Your task to perform on an android device: set an alarm Image 0: 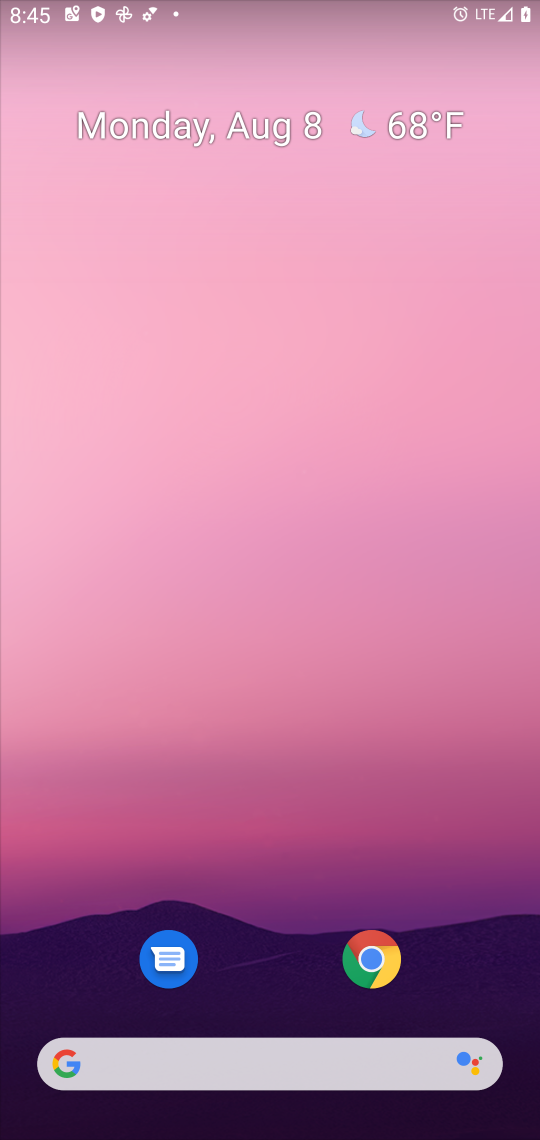
Step 0: drag from (474, 985) to (153, 12)
Your task to perform on an android device: set an alarm Image 1: 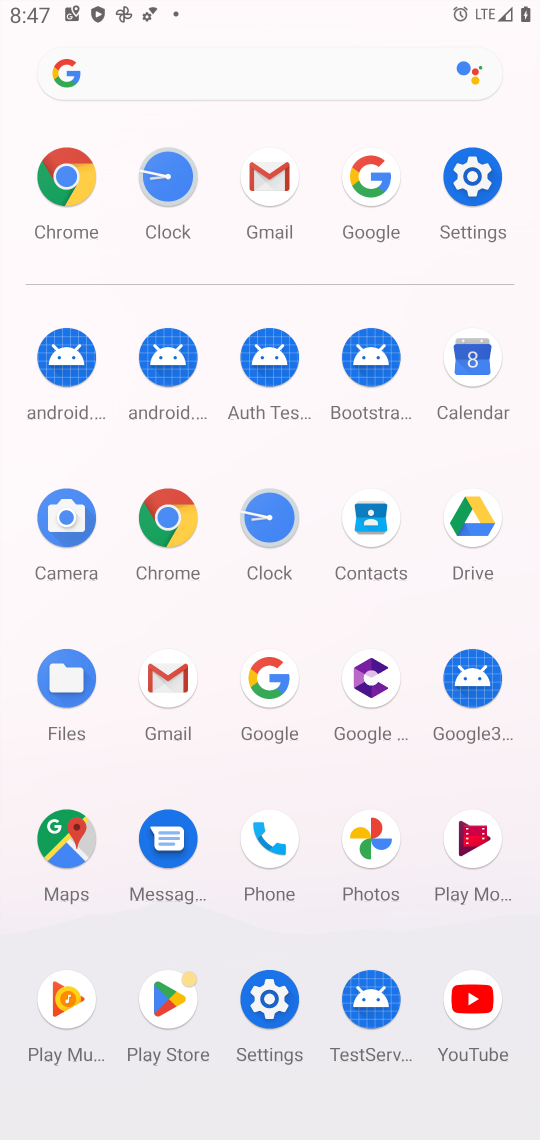
Step 1: click (298, 527)
Your task to perform on an android device: set an alarm Image 2: 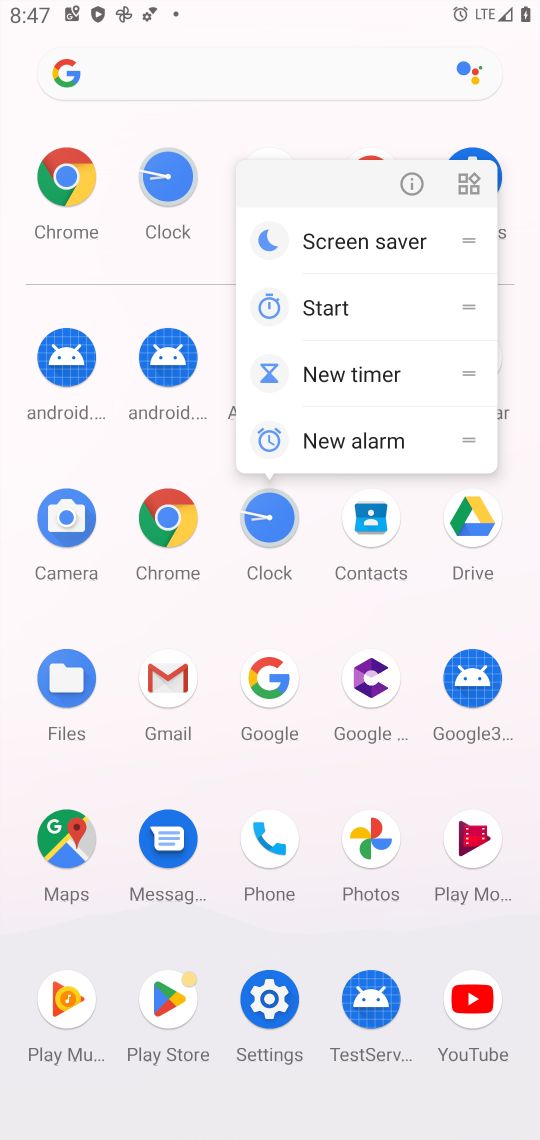
Step 2: click (279, 517)
Your task to perform on an android device: set an alarm Image 3: 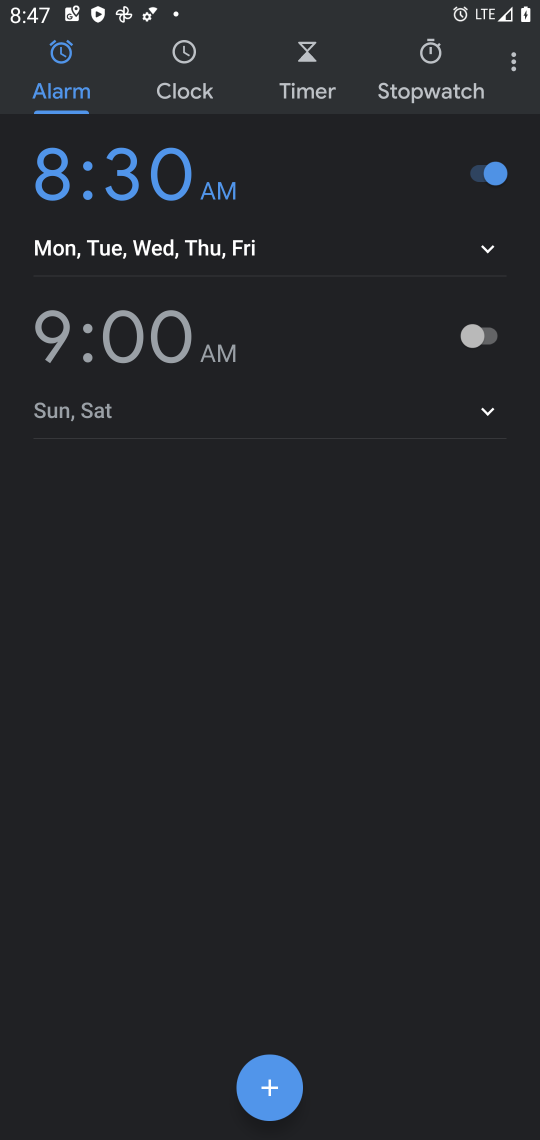
Step 3: click (495, 336)
Your task to perform on an android device: set an alarm Image 4: 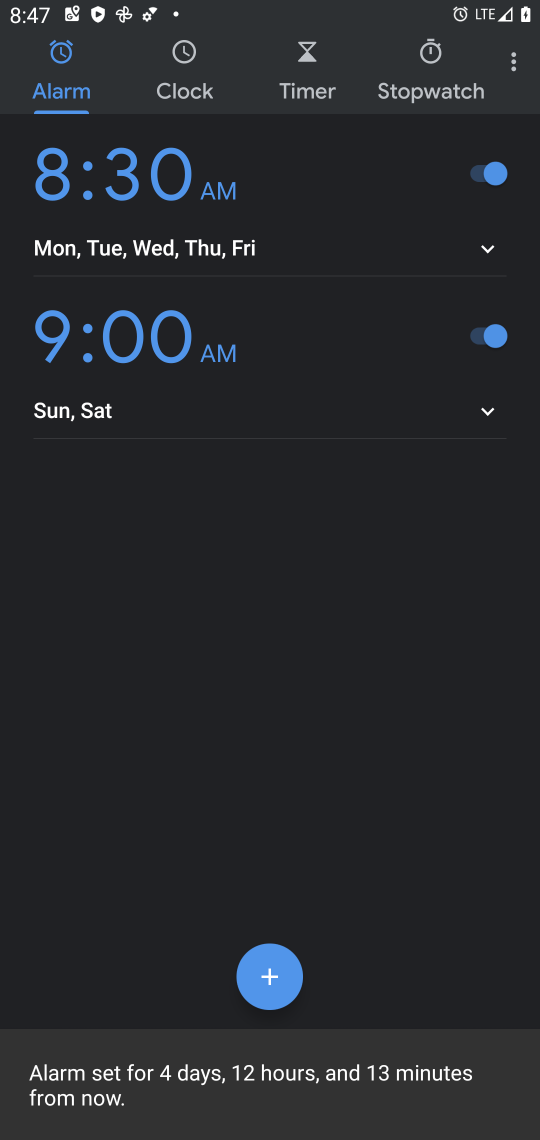
Step 4: task complete